Your task to perform on an android device: open app "Fetch Rewards" (install if not already installed) Image 0: 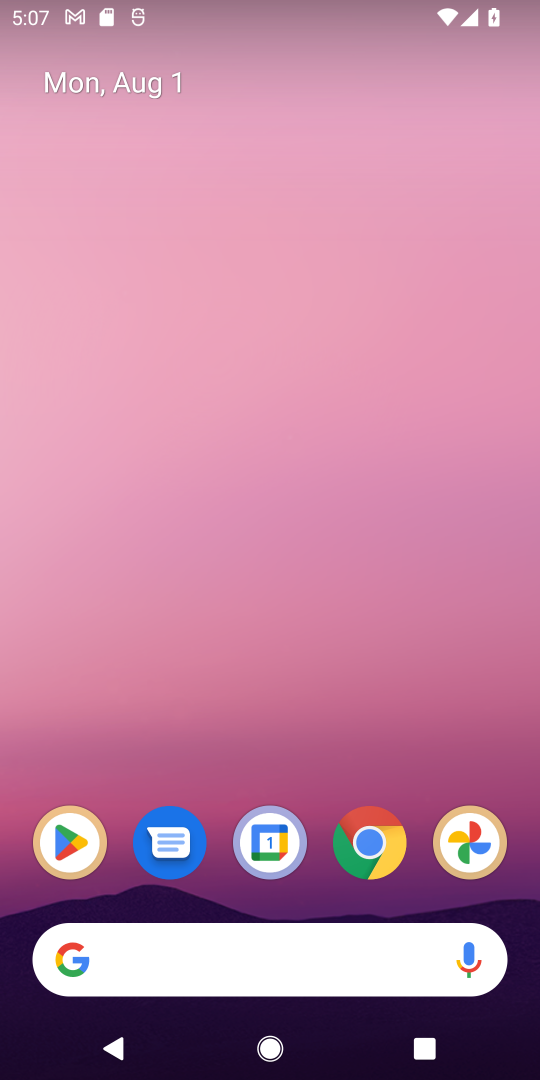
Step 0: drag from (284, 715) to (259, 509)
Your task to perform on an android device: open app "Fetch Rewards" (install if not already installed) Image 1: 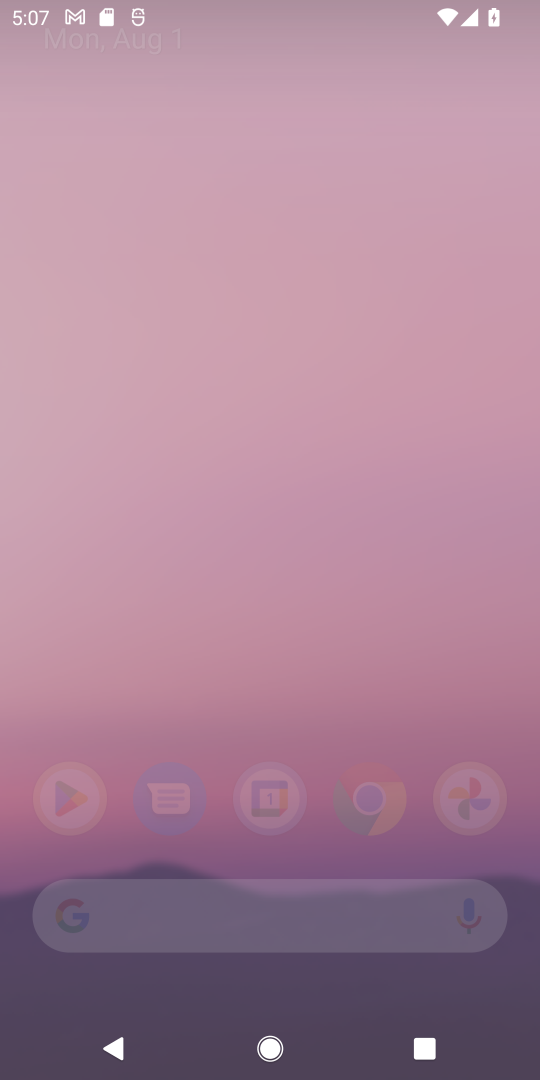
Step 1: click (249, 395)
Your task to perform on an android device: open app "Fetch Rewards" (install if not already installed) Image 2: 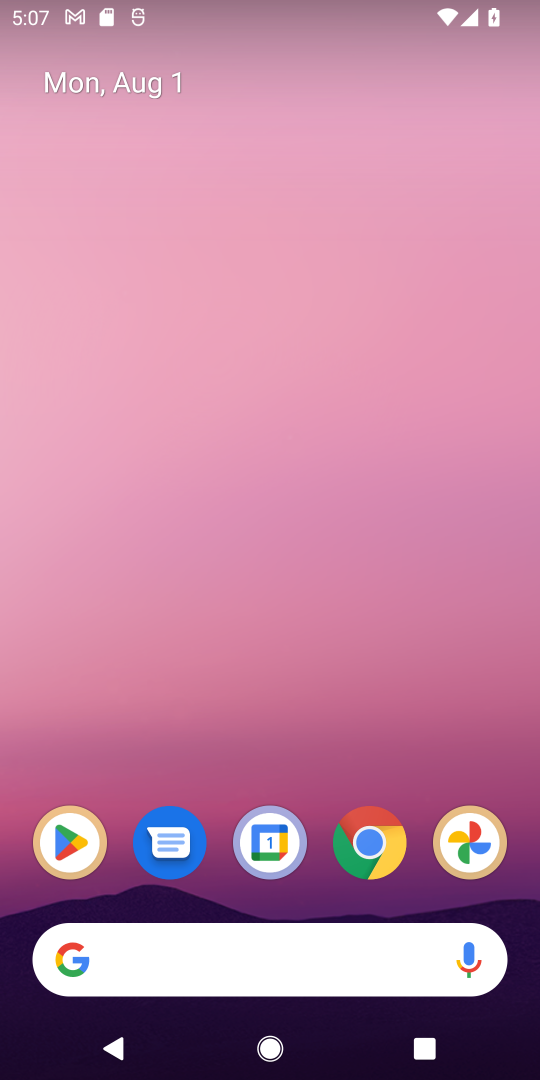
Step 2: drag from (113, 822) to (52, 225)
Your task to perform on an android device: open app "Fetch Rewards" (install if not already installed) Image 3: 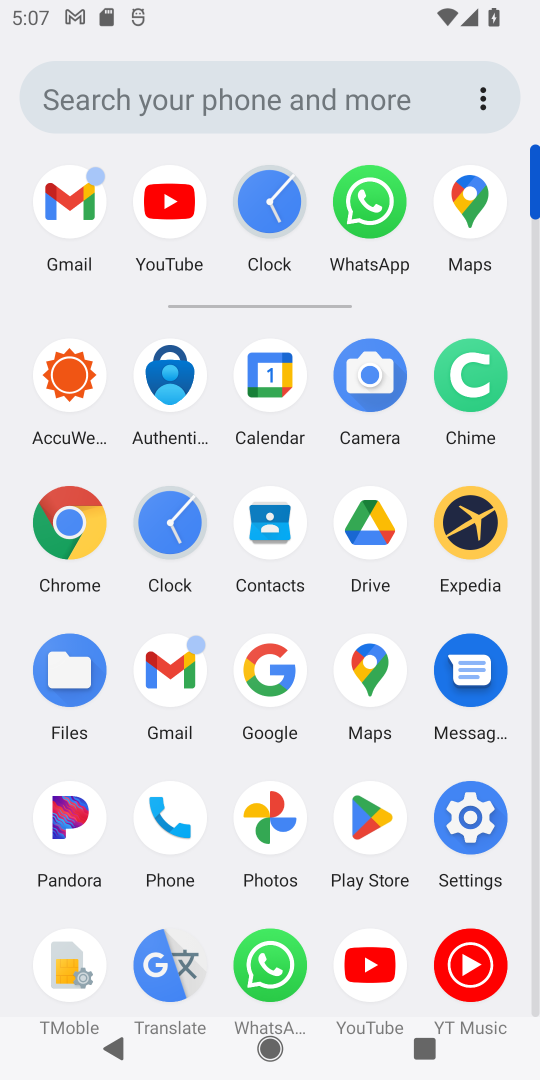
Step 3: click (377, 829)
Your task to perform on an android device: open app "Fetch Rewards" (install if not already installed) Image 4: 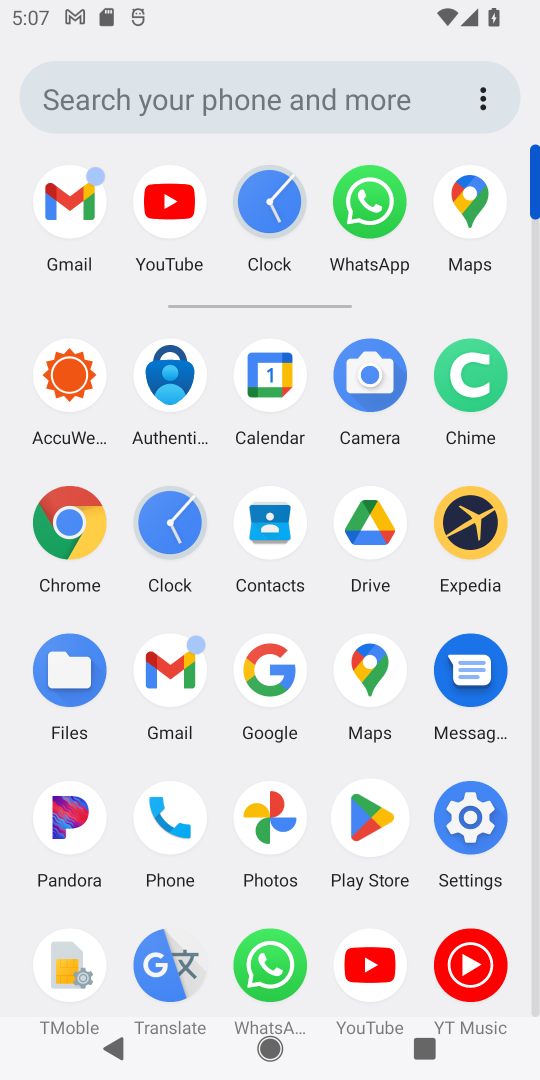
Step 4: click (375, 828)
Your task to perform on an android device: open app "Fetch Rewards" (install if not already installed) Image 5: 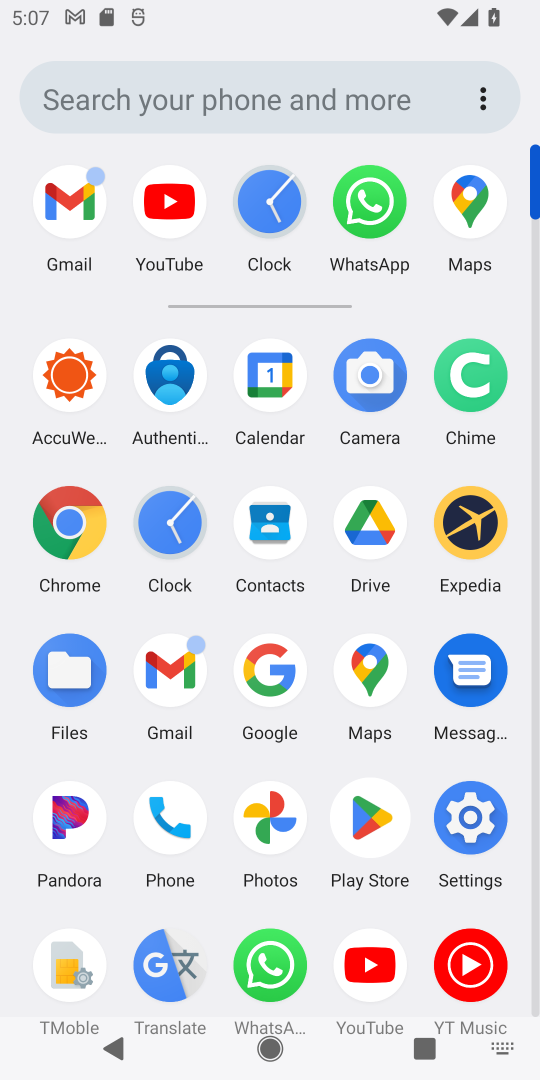
Step 5: click (374, 826)
Your task to perform on an android device: open app "Fetch Rewards" (install if not already installed) Image 6: 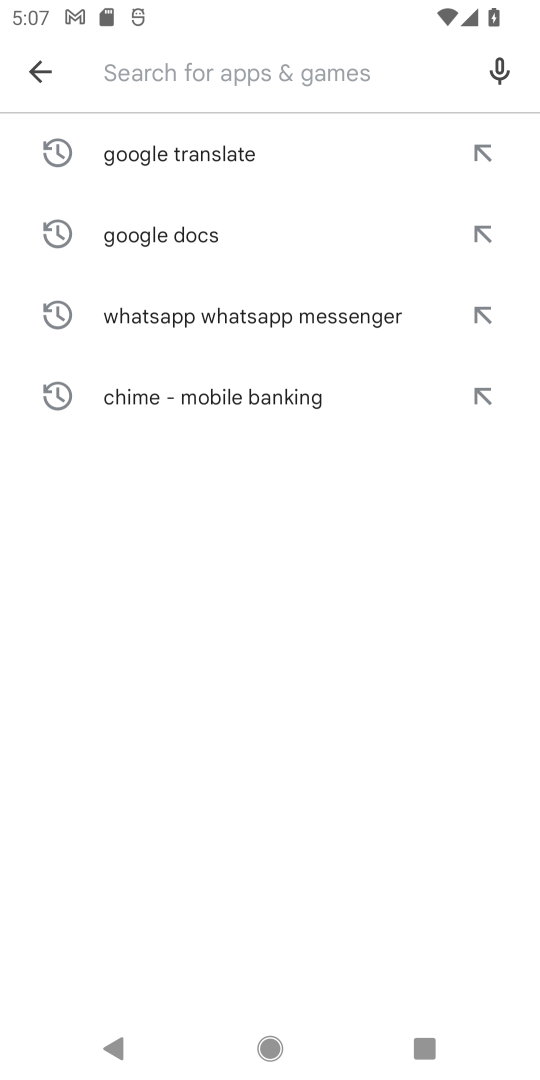
Step 6: click (367, 822)
Your task to perform on an android device: open app "Fetch Rewards" (install if not already installed) Image 7: 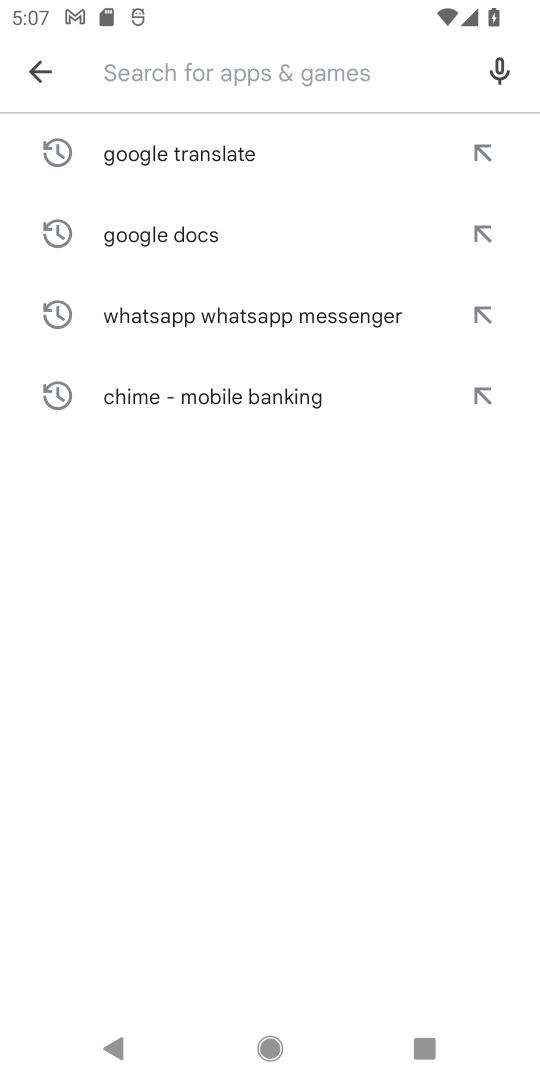
Step 7: type "fetch Rewards"
Your task to perform on an android device: open app "Fetch Rewards" (install if not already installed) Image 8: 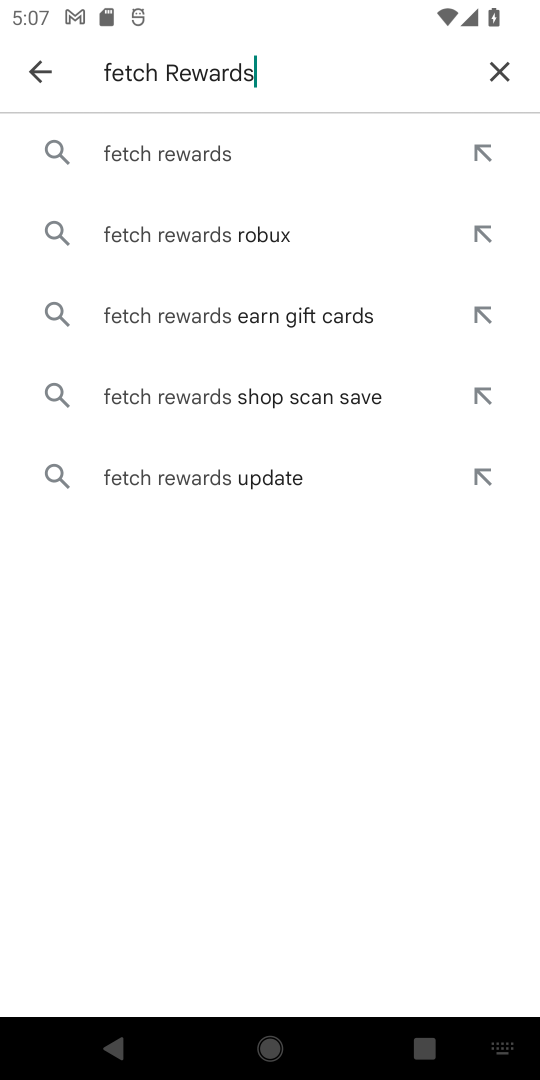
Step 8: click (209, 149)
Your task to perform on an android device: open app "Fetch Rewards" (install if not already installed) Image 9: 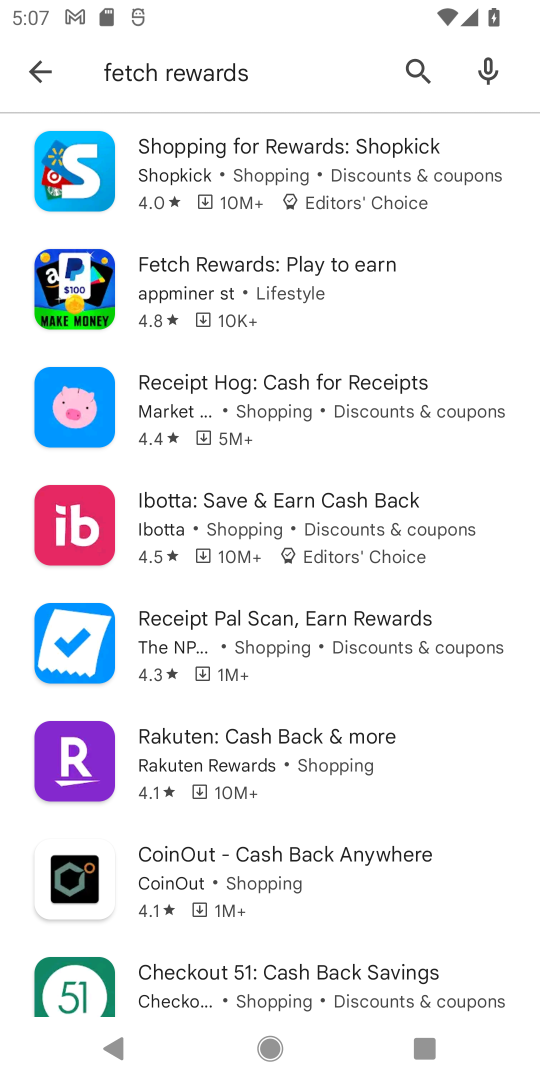
Step 9: drag from (225, 736) to (261, 199)
Your task to perform on an android device: open app "Fetch Rewards" (install if not already installed) Image 10: 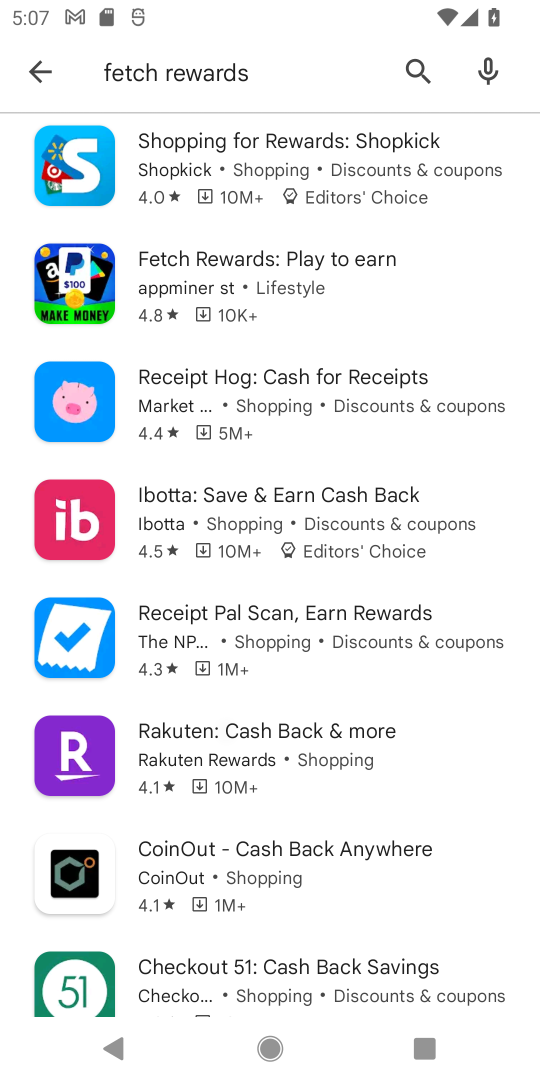
Step 10: drag from (129, 767) to (41, 940)
Your task to perform on an android device: open app "Fetch Rewards" (install if not already installed) Image 11: 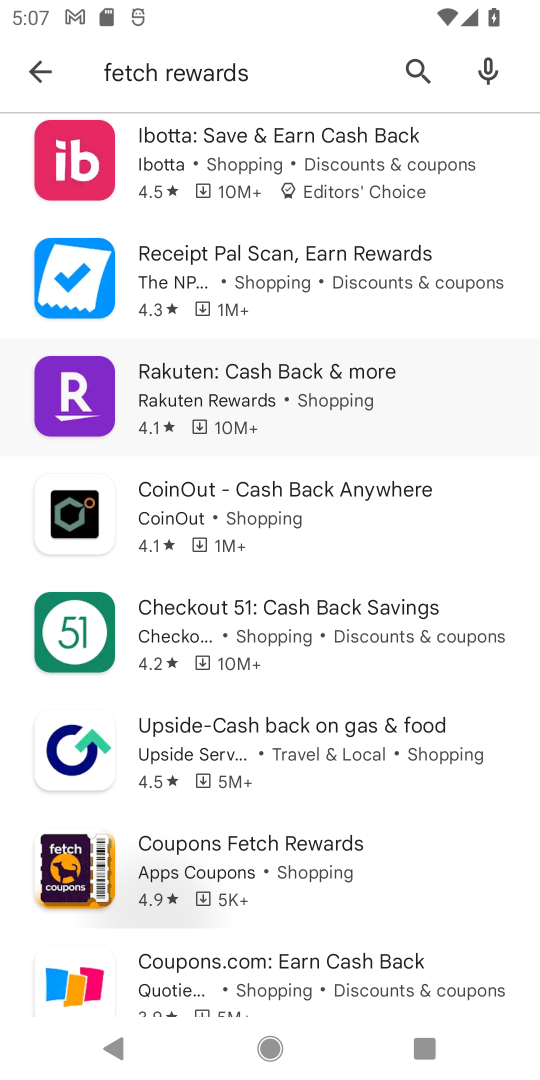
Step 11: click (105, 908)
Your task to perform on an android device: open app "Fetch Rewards" (install if not already installed) Image 12: 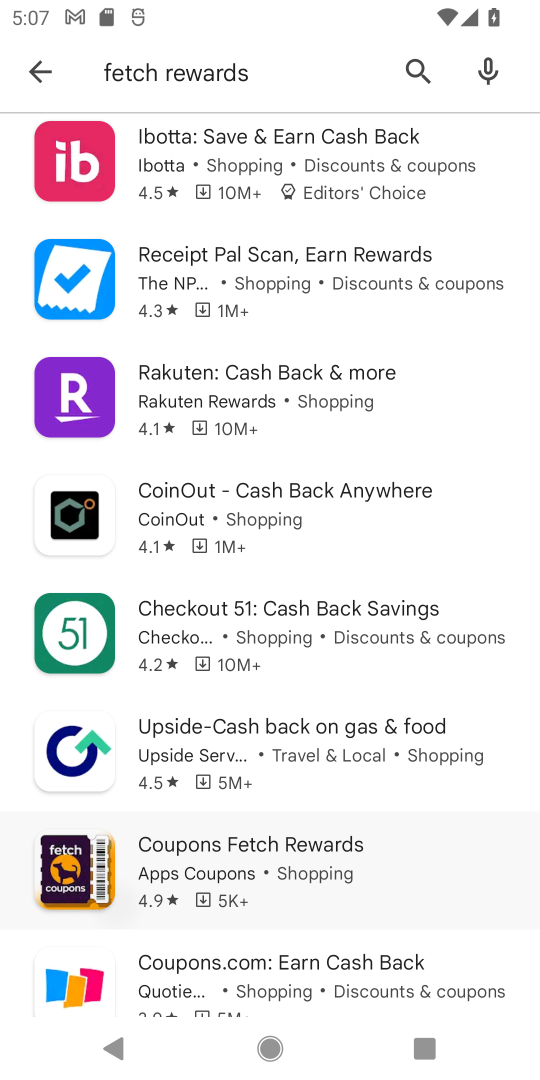
Step 12: drag from (294, 648) to (232, 871)
Your task to perform on an android device: open app "Fetch Rewards" (install if not already installed) Image 13: 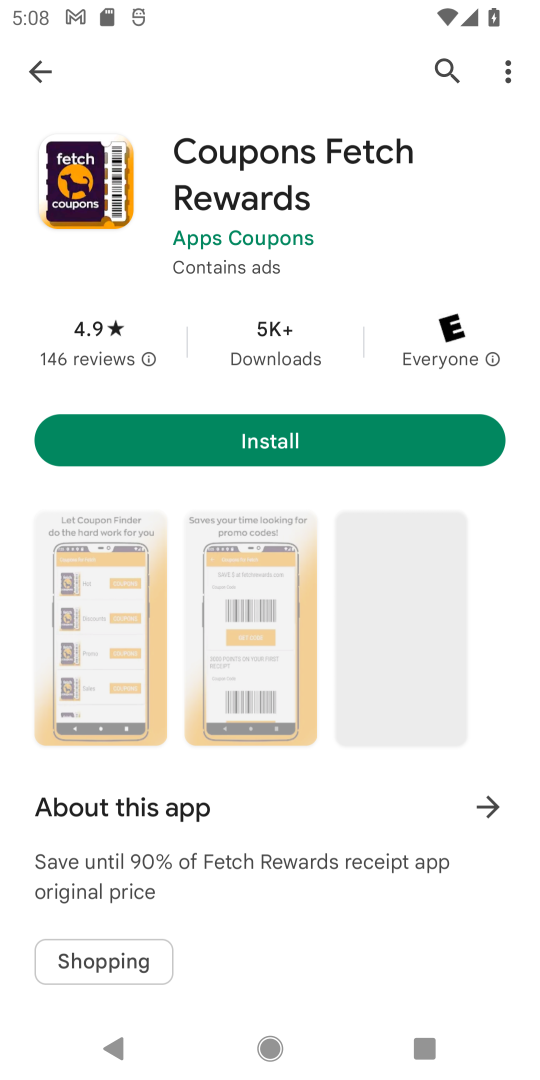
Step 13: drag from (230, 1042) to (143, 1068)
Your task to perform on an android device: open app "Fetch Rewards" (install if not already installed) Image 14: 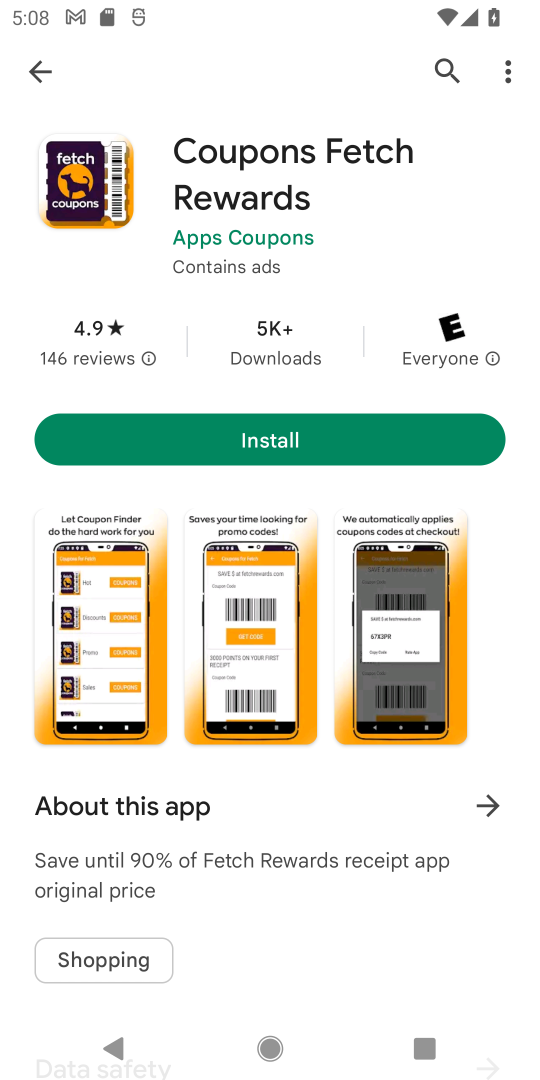
Step 14: click (53, 61)
Your task to perform on an android device: open app "Fetch Rewards" (install if not already installed) Image 15: 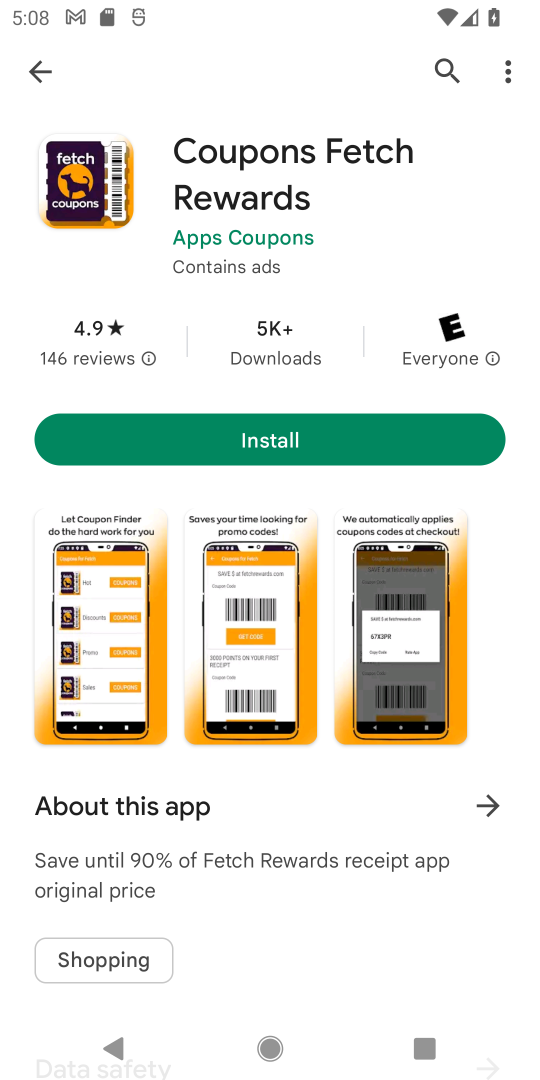
Step 15: click (27, 70)
Your task to perform on an android device: open app "Fetch Rewards" (install if not already installed) Image 16: 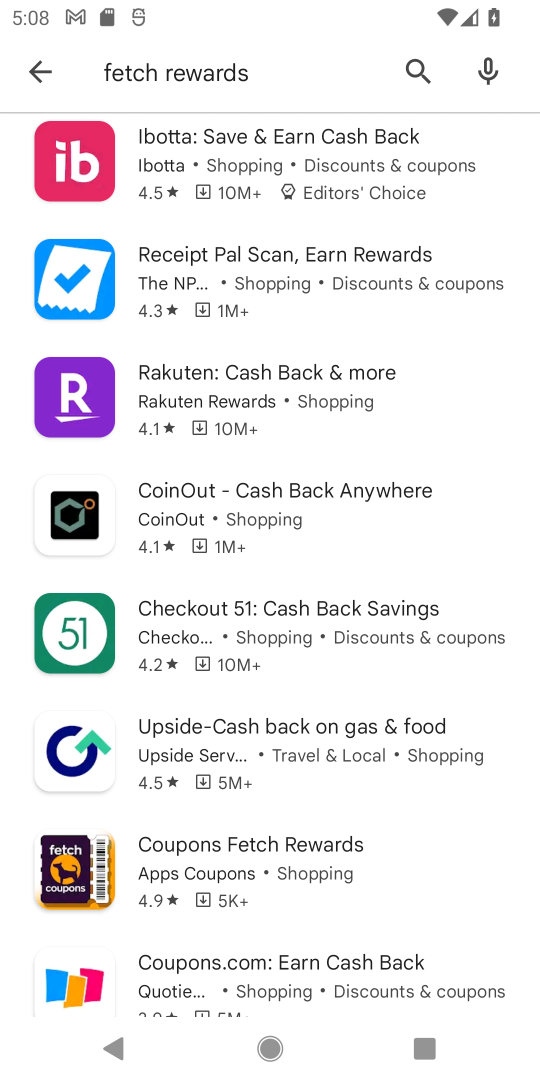
Step 16: click (47, 84)
Your task to perform on an android device: open app "Fetch Rewards" (install if not already installed) Image 17: 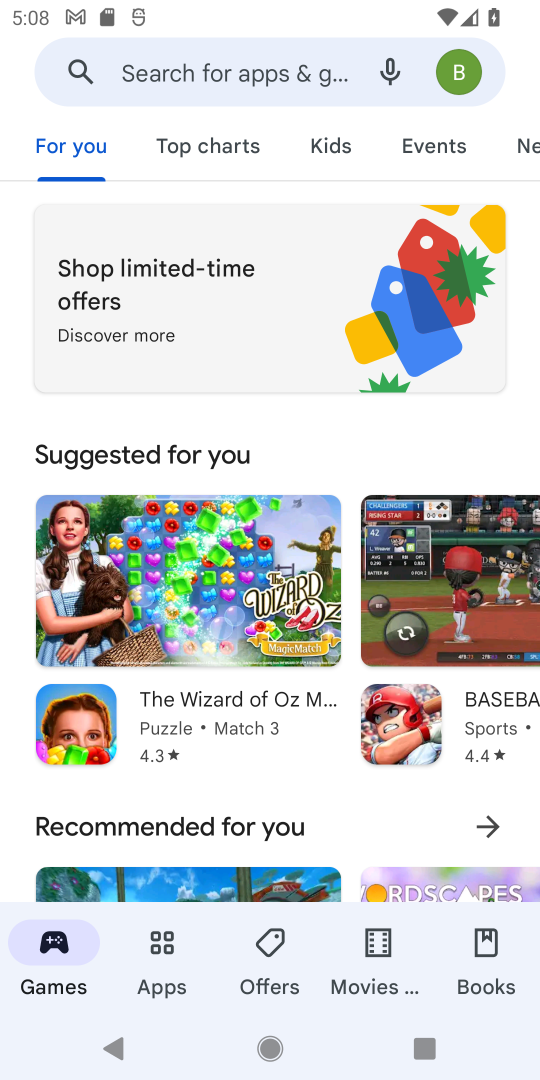
Step 17: click (183, 91)
Your task to perform on an android device: open app "Fetch Rewards" (install if not already installed) Image 18: 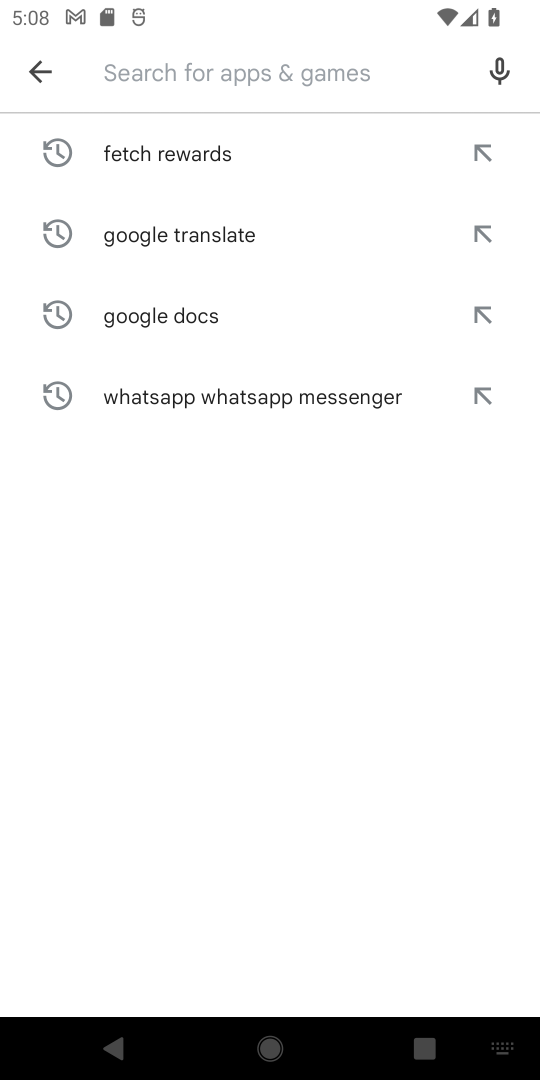
Step 18: click (199, 143)
Your task to perform on an android device: open app "Fetch Rewards" (install if not already installed) Image 19: 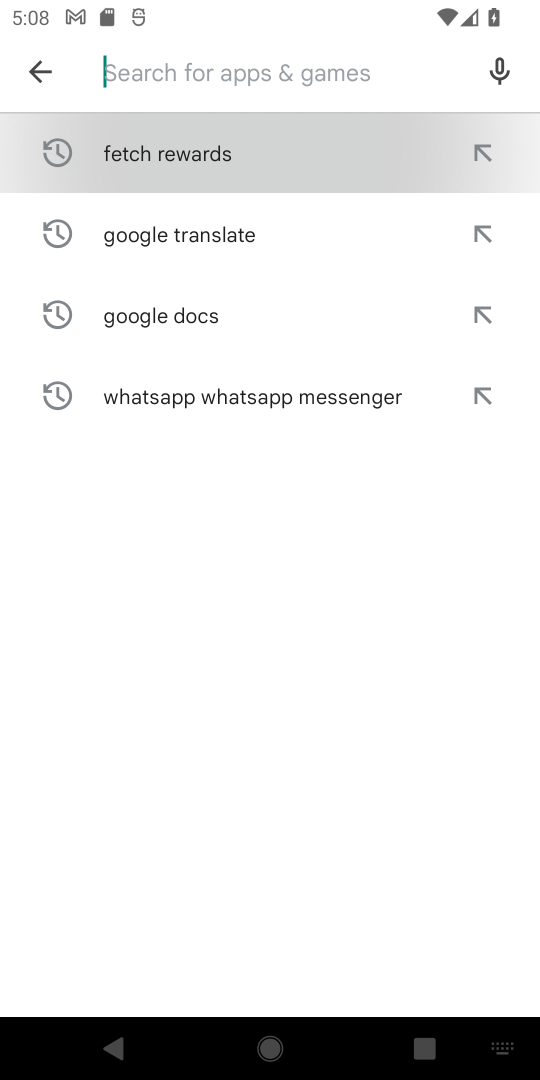
Step 19: click (484, 149)
Your task to perform on an android device: open app "Fetch Rewards" (install if not already installed) Image 20: 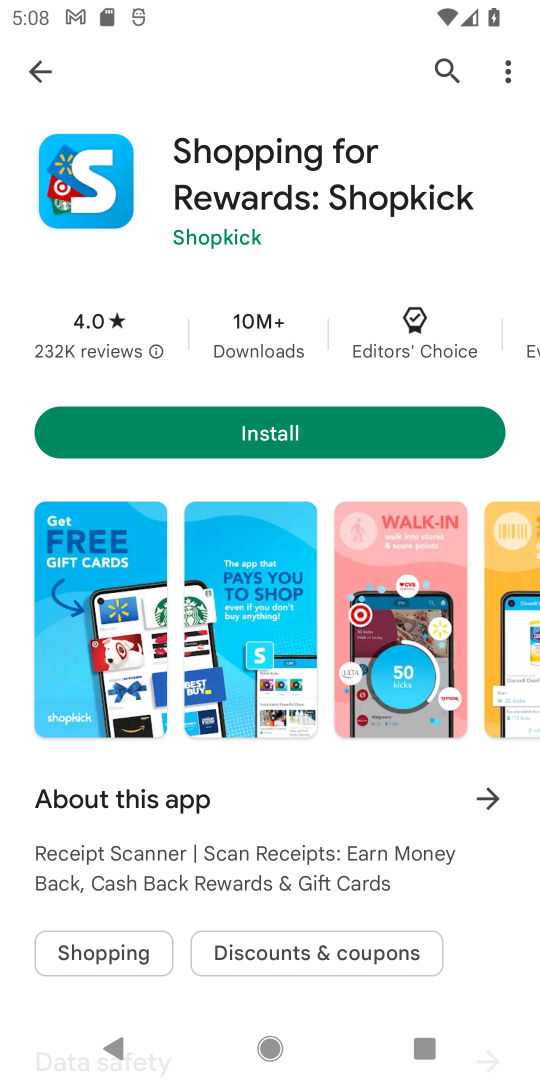
Step 20: click (306, 434)
Your task to perform on an android device: open app "Fetch Rewards" (install if not already installed) Image 21: 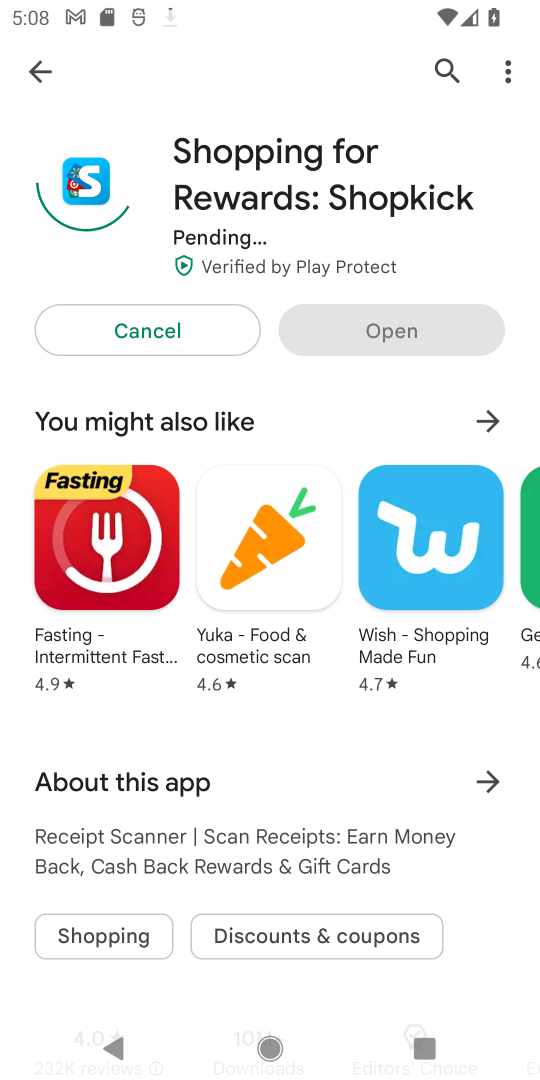
Step 21: click (446, 329)
Your task to perform on an android device: open app "Fetch Rewards" (install if not already installed) Image 22: 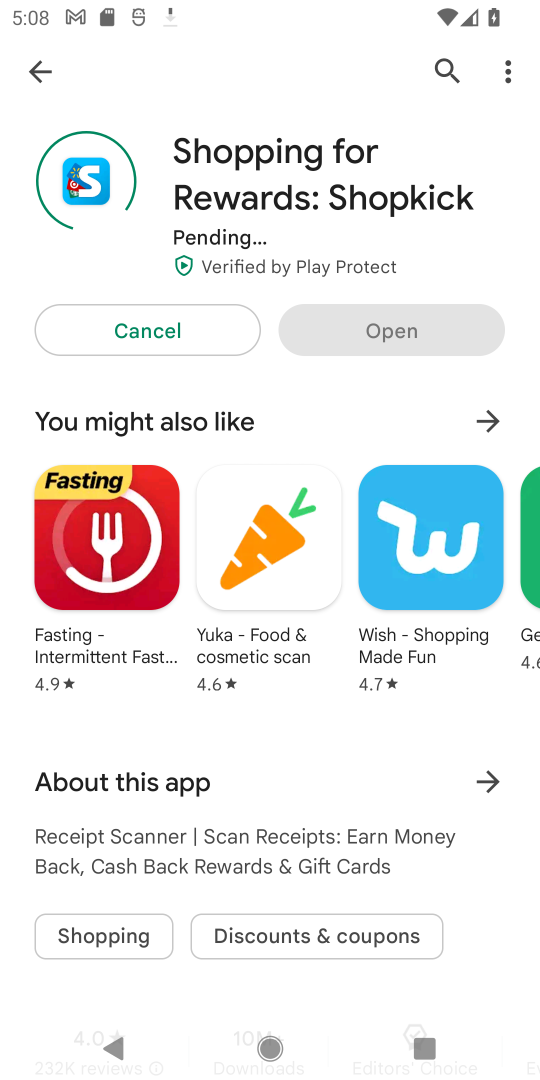
Step 22: click (446, 326)
Your task to perform on an android device: open app "Fetch Rewards" (install if not already installed) Image 23: 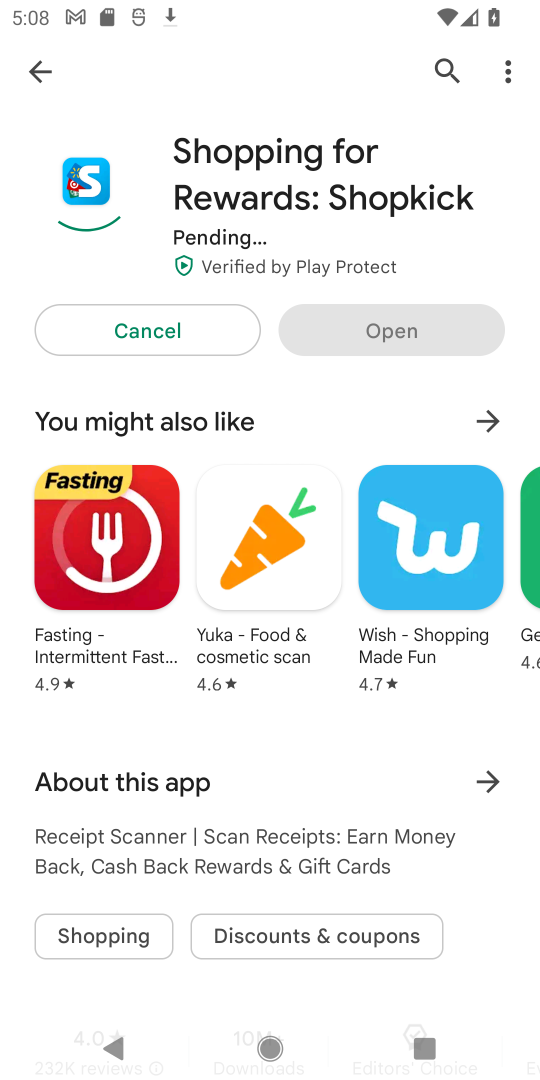
Step 23: click (445, 323)
Your task to perform on an android device: open app "Fetch Rewards" (install if not already installed) Image 24: 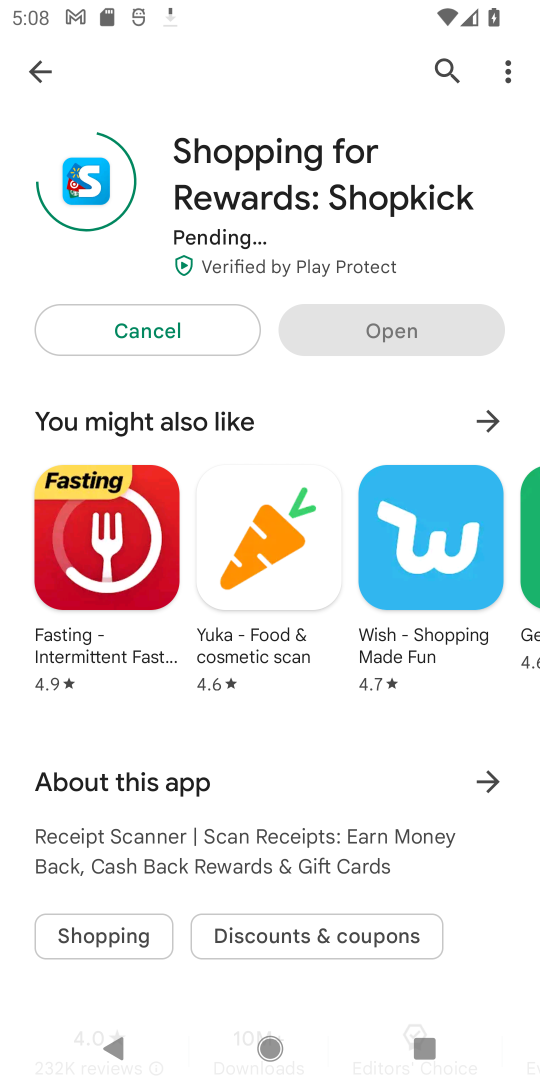
Step 24: click (61, 78)
Your task to perform on an android device: open app "Fetch Rewards" (install if not already installed) Image 25: 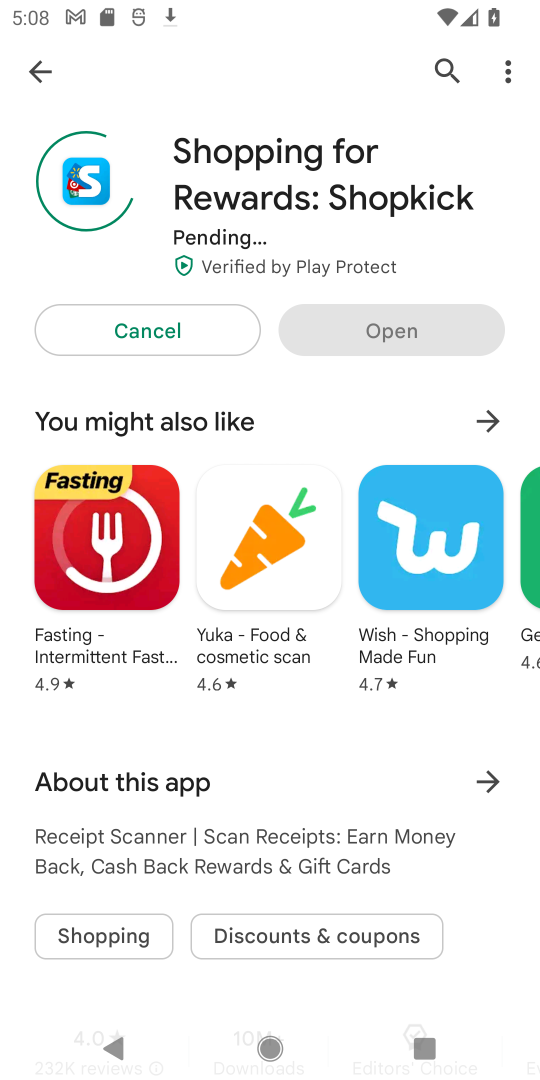
Step 25: click (58, 79)
Your task to perform on an android device: open app "Fetch Rewards" (install if not already installed) Image 26: 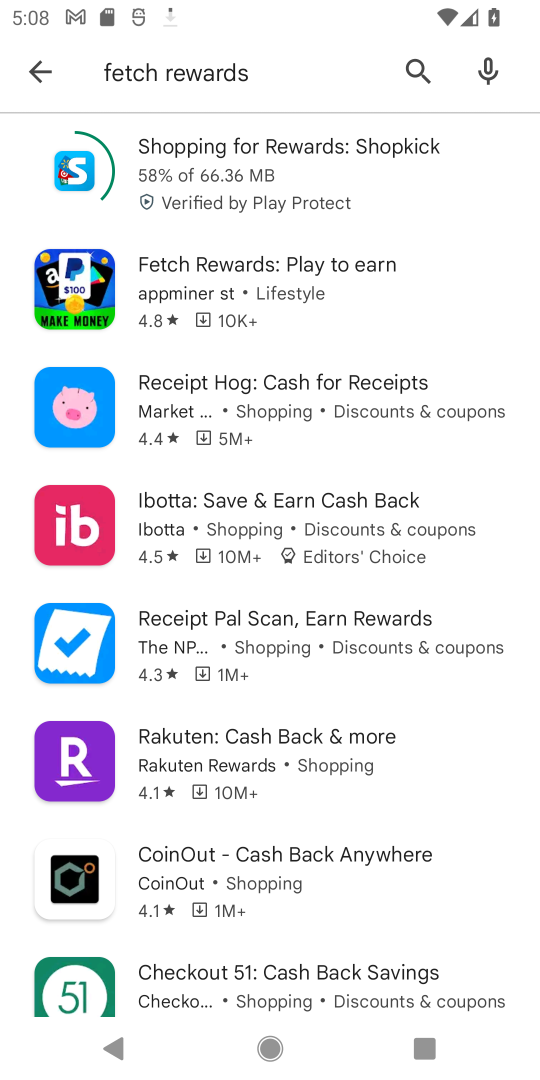
Step 26: task complete